Your task to perform on an android device: Toggle the flashlight Image 0: 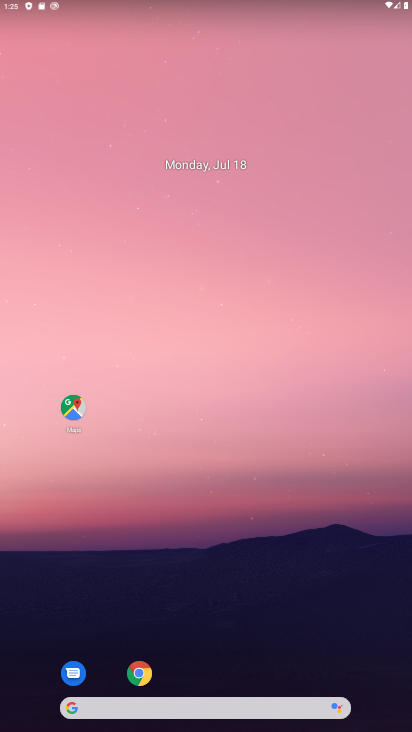
Step 0: drag from (241, 703) to (201, 154)
Your task to perform on an android device: Toggle the flashlight Image 1: 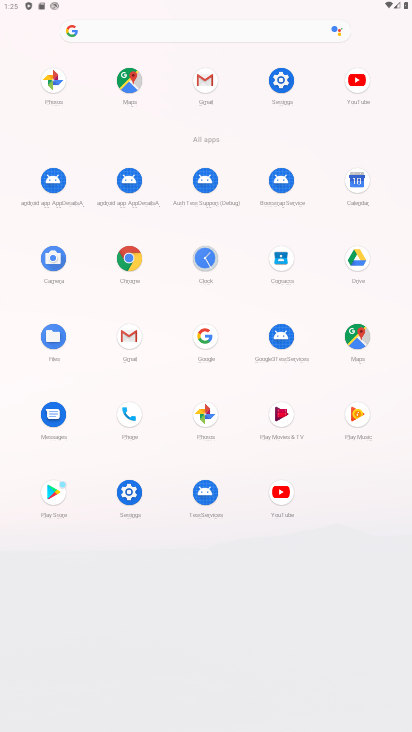
Step 1: drag from (122, 494) to (293, 470)
Your task to perform on an android device: Toggle the flashlight Image 2: 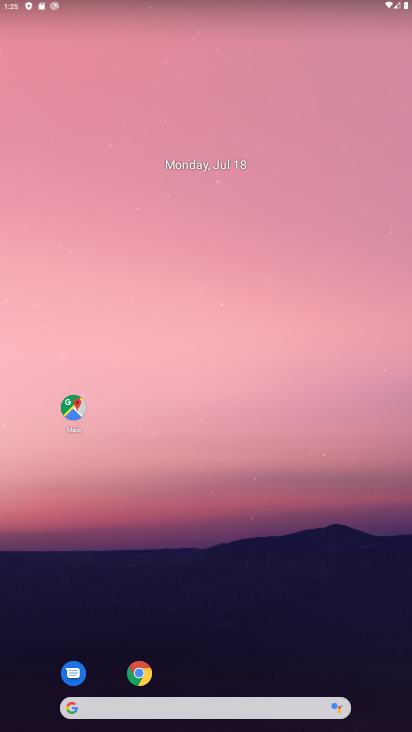
Step 2: drag from (288, 712) to (253, 48)
Your task to perform on an android device: Toggle the flashlight Image 3: 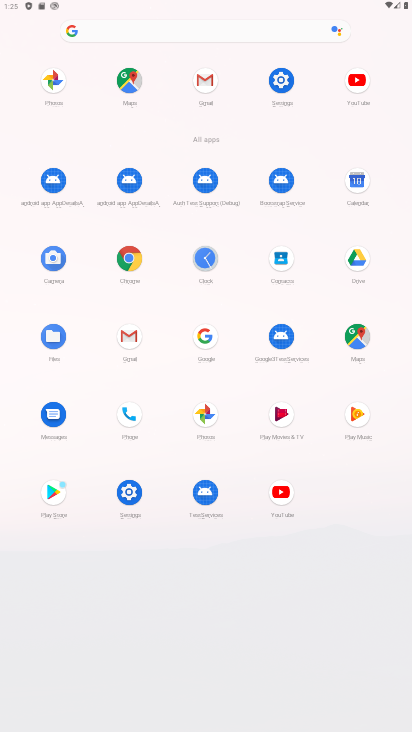
Step 3: click (125, 497)
Your task to perform on an android device: Toggle the flashlight Image 4: 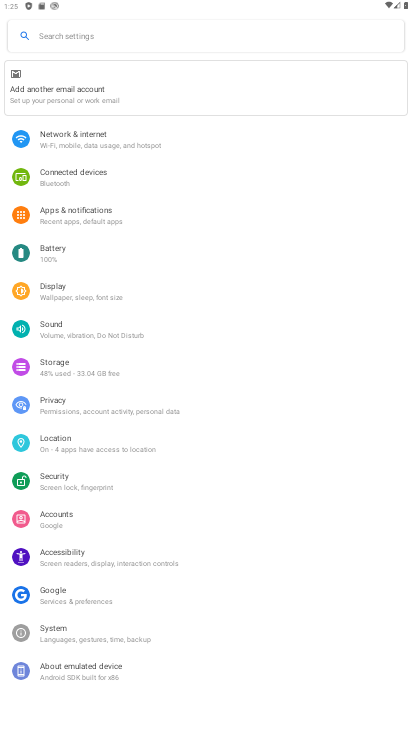
Step 4: click (77, 28)
Your task to perform on an android device: Toggle the flashlight Image 5: 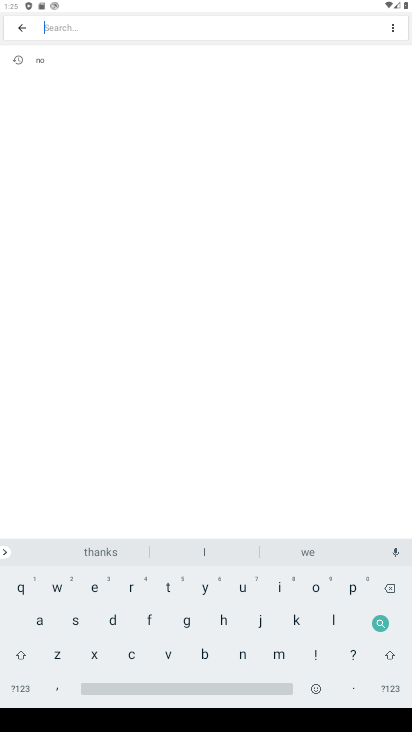
Step 5: click (151, 622)
Your task to perform on an android device: Toggle the flashlight Image 6: 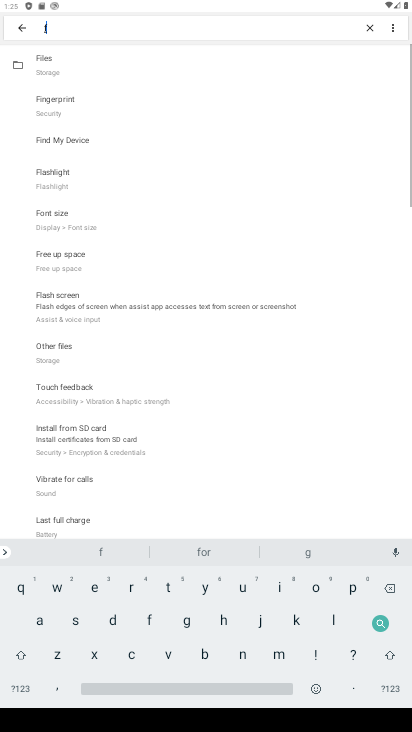
Step 6: click (334, 617)
Your task to perform on an android device: Toggle the flashlight Image 7: 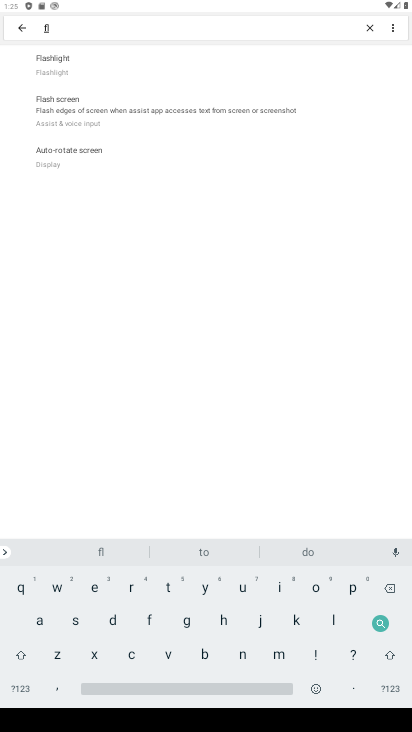
Step 7: click (101, 70)
Your task to perform on an android device: Toggle the flashlight Image 8: 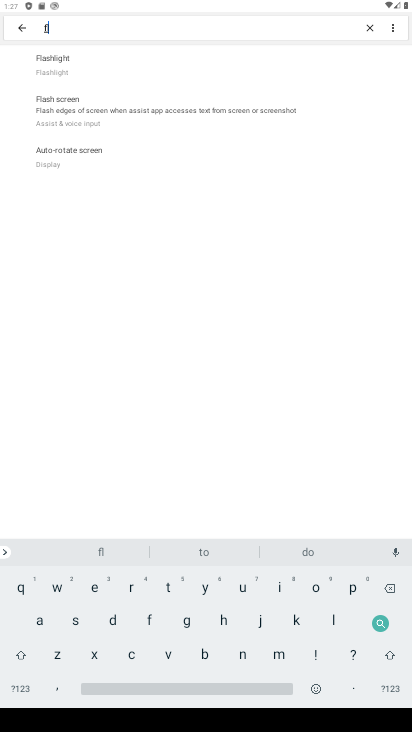
Step 8: task complete